Your task to perform on an android device: see creations saved in the google photos Image 0: 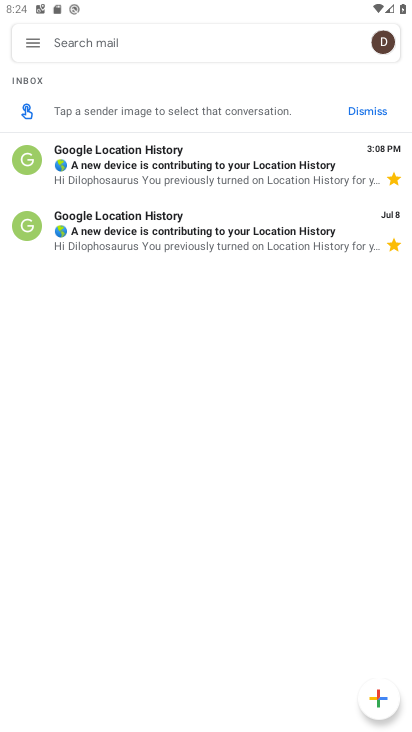
Step 0: press home button
Your task to perform on an android device: see creations saved in the google photos Image 1: 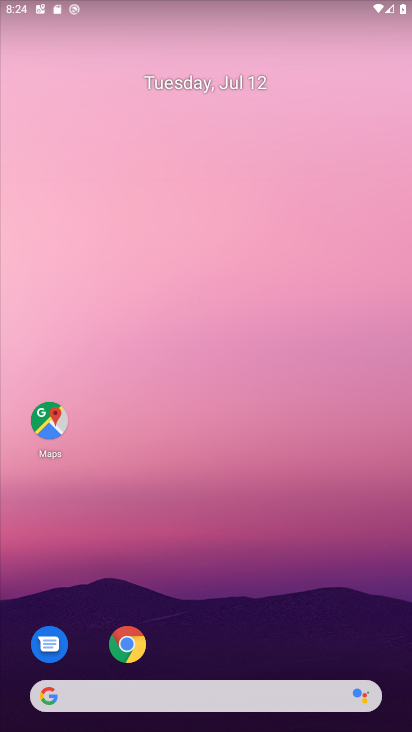
Step 1: drag from (253, 565) to (378, 632)
Your task to perform on an android device: see creations saved in the google photos Image 2: 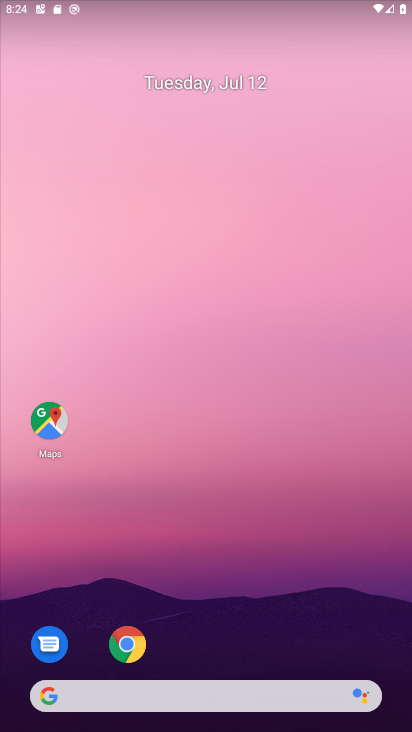
Step 2: click (281, 665)
Your task to perform on an android device: see creations saved in the google photos Image 3: 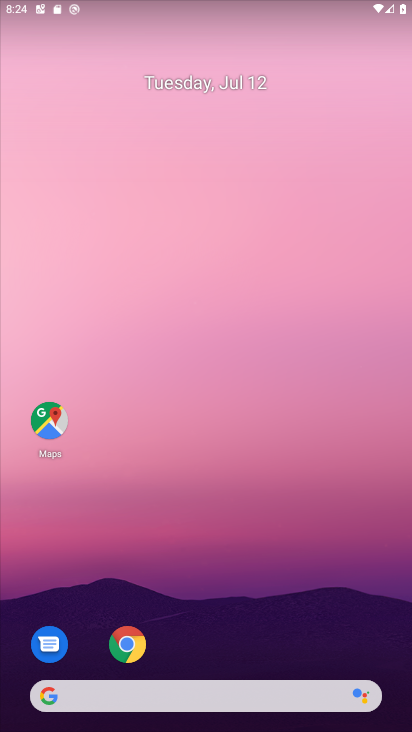
Step 3: drag from (280, 624) to (153, 4)
Your task to perform on an android device: see creations saved in the google photos Image 4: 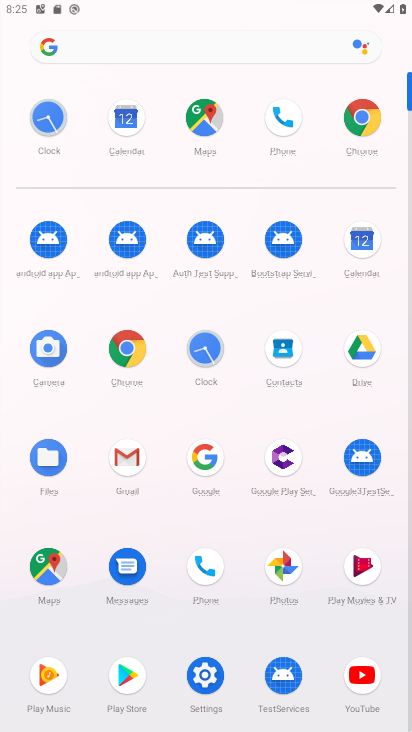
Step 4: click (281, 579)
Your task to perform on an android device: see creations saved in the google photos Image 5: 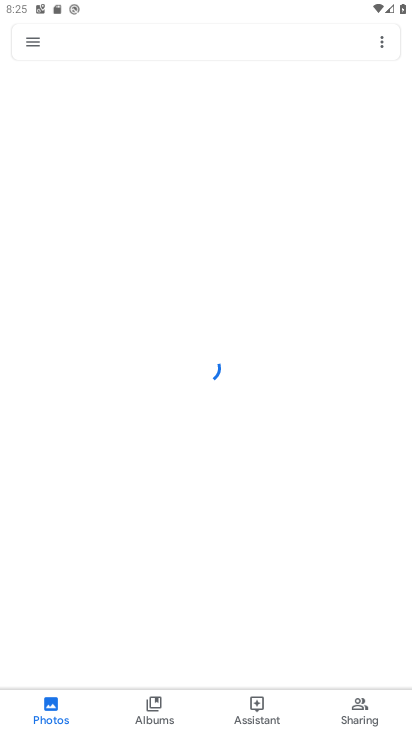
Step 5: click (144, 729)
Your task to perform on an android device: see creations saved in the google photos Image 6: 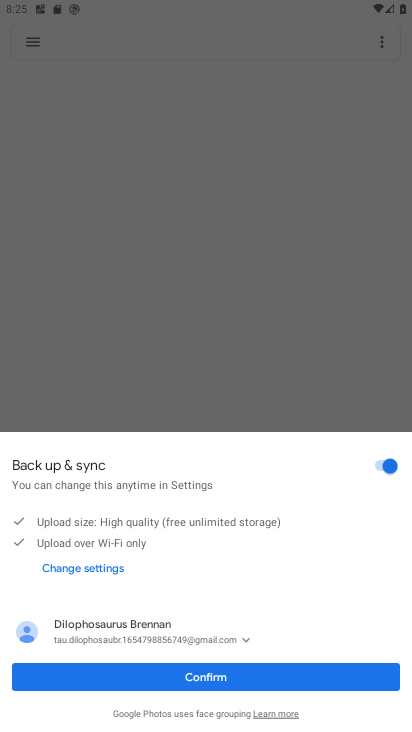
Step 6: click (175, 683)
Your task to perform on an android device: see creations saved in the google photos Image 7: 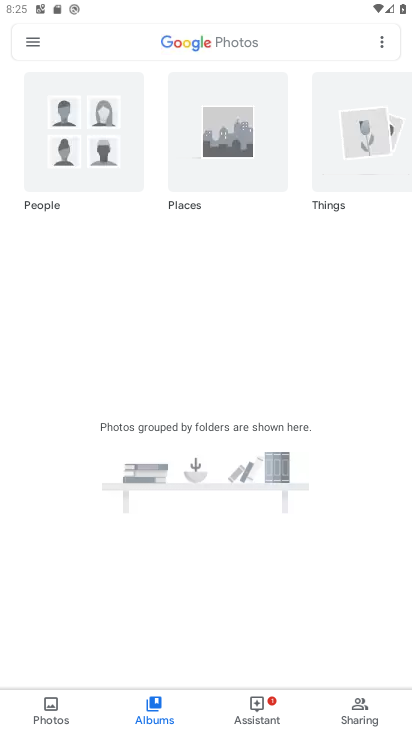
Step 7: task complete